Your task to perform on an android device: turn on the 12-hour format for clock Image 0: 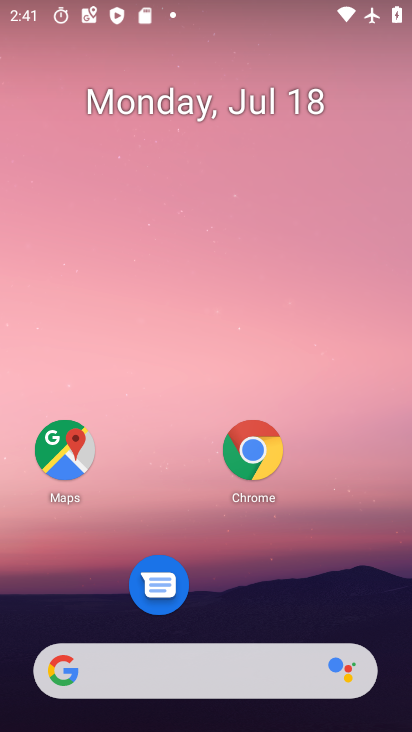
Step 0: press home button
Your task to perform on an android device: turn on the 12-hour format for clock Image 1: 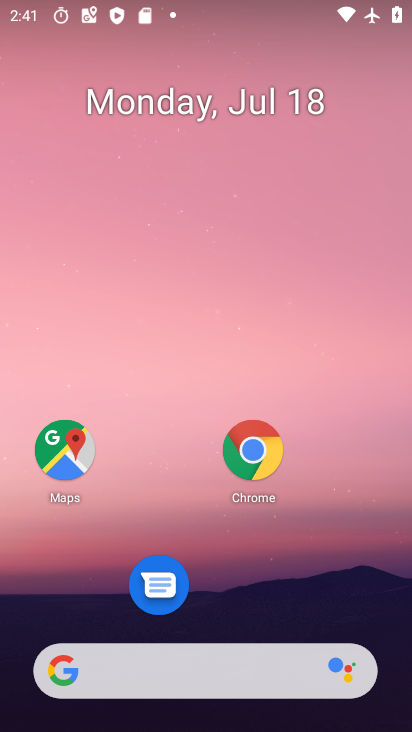
Step 1: drag from (154, 667) to (357, 97)
Your task to perform on an android device: turn on the 12-hour format for clock Image 2: 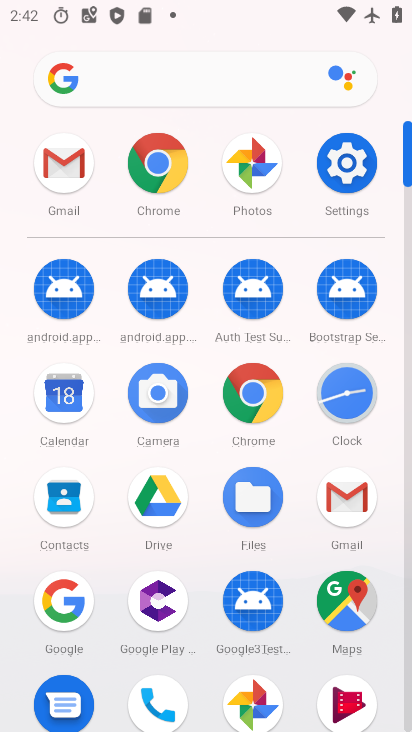
Step 2: click (350, 391)
Your task to perform on an android device: turn on the 12-hour format for clock Image 3: 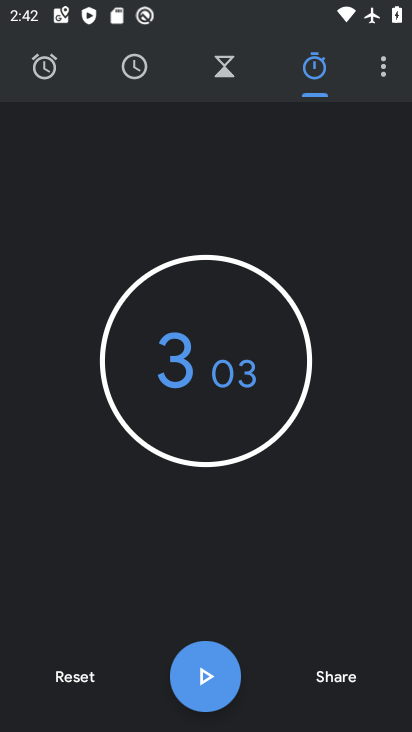
Step 3: click (380, 71)
Your task to perform on an android device: turn on the 12-hour format for clock Image 4: 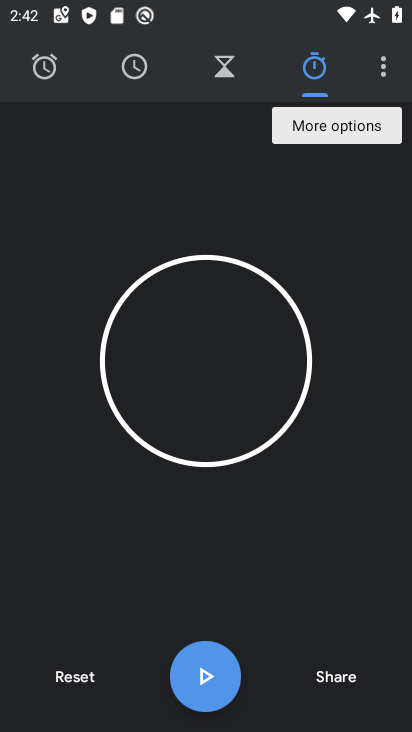
Step 4: click (384, 77)
Your task to perform on an android device: turn on the 12-hour format for clock Image 5: 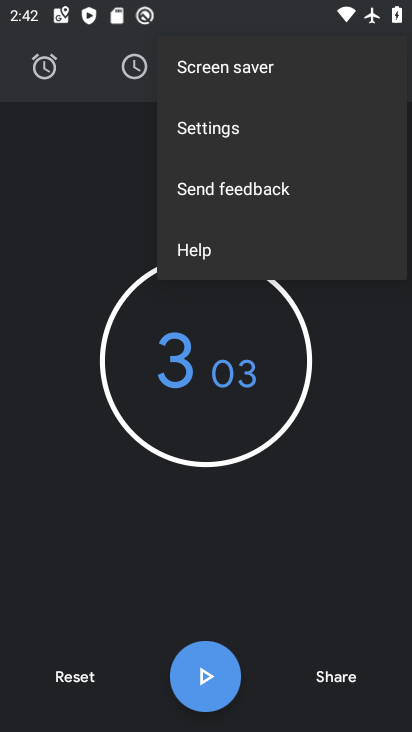
Step 5: click (241, 136)
Your task to perform on an android device: turn on the 12-hour format for clock Image 6: 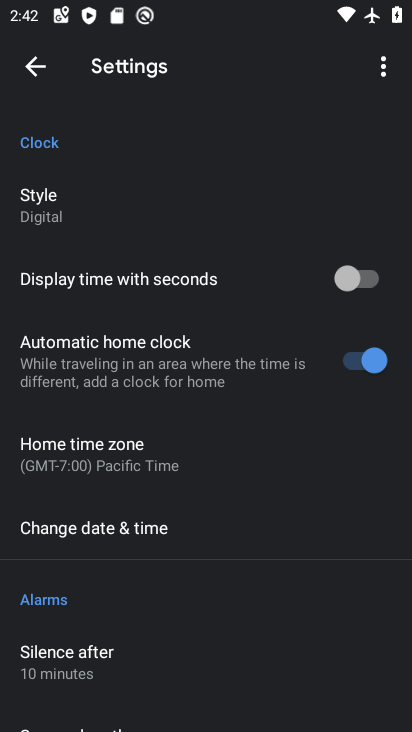
Step 6: drag from (286, 233) to (324, 152)
Your task to perform on an android device: turn on the 12-hour format for clock Image 7: 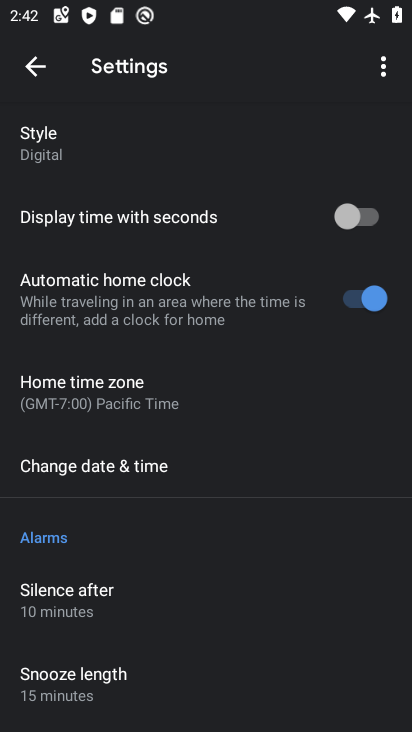
Step 7: click (129, 466)
Your task to perform on an android device: turn on the 12-hour format for clock Image 8: 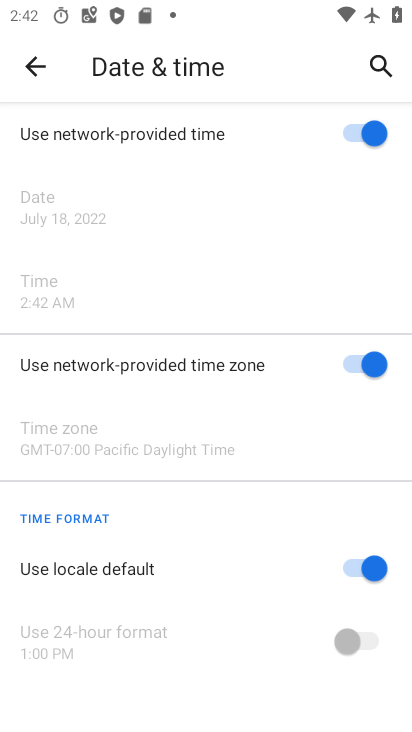
Step 8: task complete